Your task to perform on an android device: Go to wifi settings Image 0: 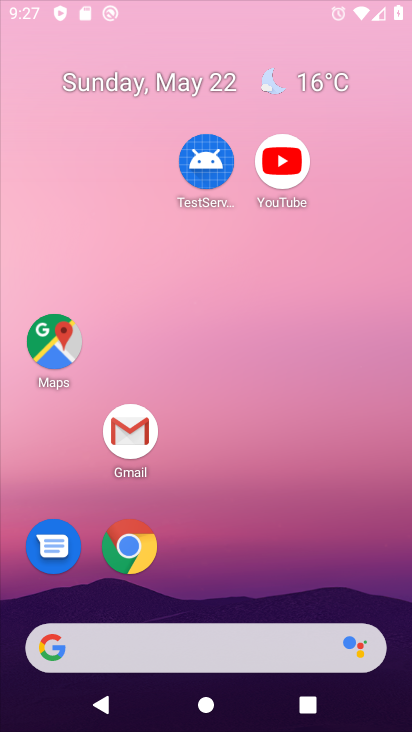
Step 0: click (248, 161)
Your task to perform on an android device: Go to wifi settings Image 1: 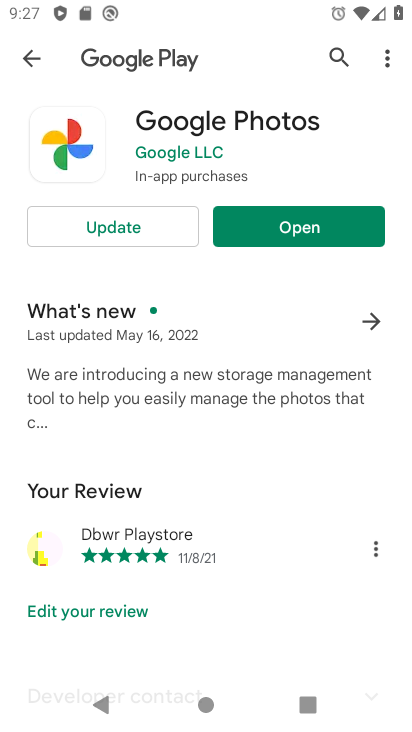
Step 1: press back button
Your task to perform on an android device: Go to wifi settings Image 2: 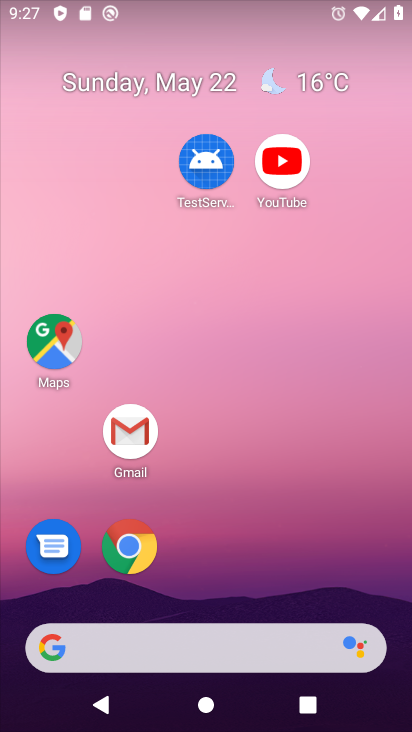
Step 2: drag from (250, 723) to (209, 221)
Your task to perform on an android device: Go to wifi settings Image 3: 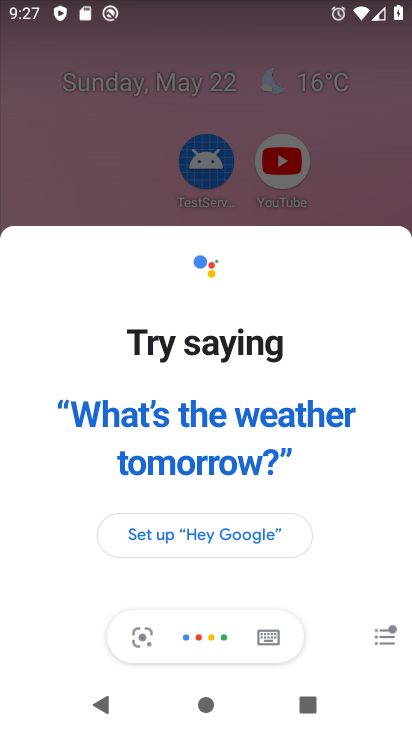
Step 3: drag from (296, 556) to (296, 145)
Your task to perform on an android device: Go to wifi settings Image 4: 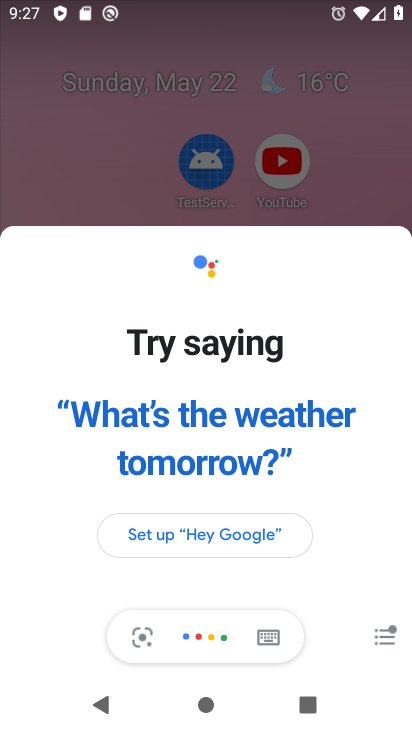
Step 4: press back button
Your task to perform on an android device: Go to wifi settings Image 5: 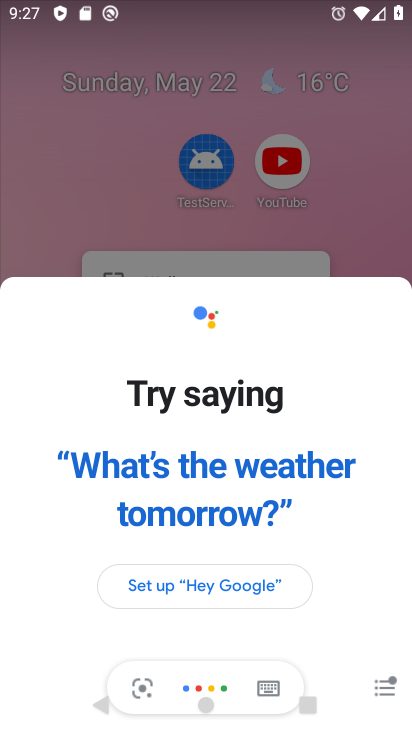
Step 5: press back button
Your task to perform on an android device: Go to wifi settings Image 6: 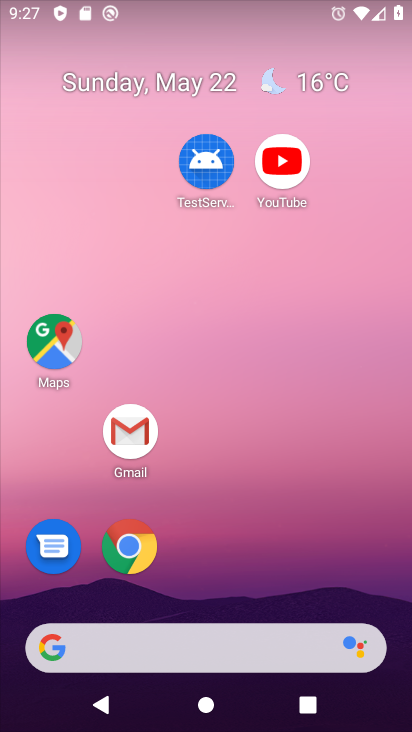
Step 6: drag from (278, 681) to (281, 76)
Your task to perform on an android device: Go to wifi settings Image 7: 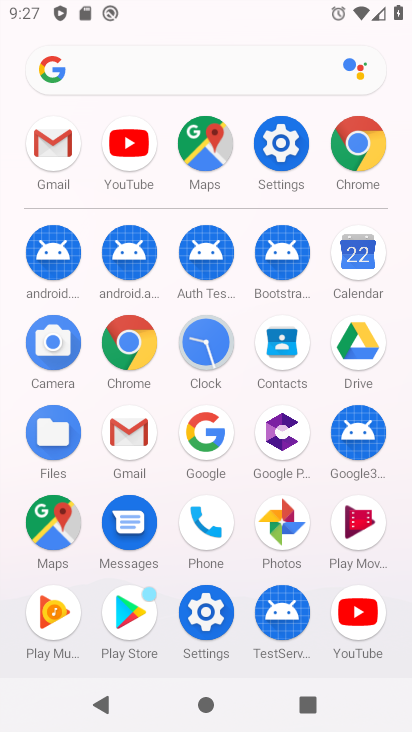
Step 7: click (277, 148)
Your task to perform on an android device: Go to wifi settings Image 8: 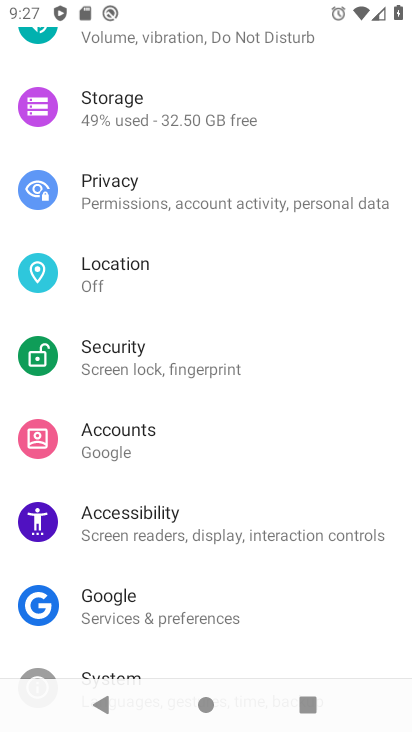
Step 8: drag from (173, 143) to (166, 472)
Your task to perform on an android device: Go to wifi settings Image 9: 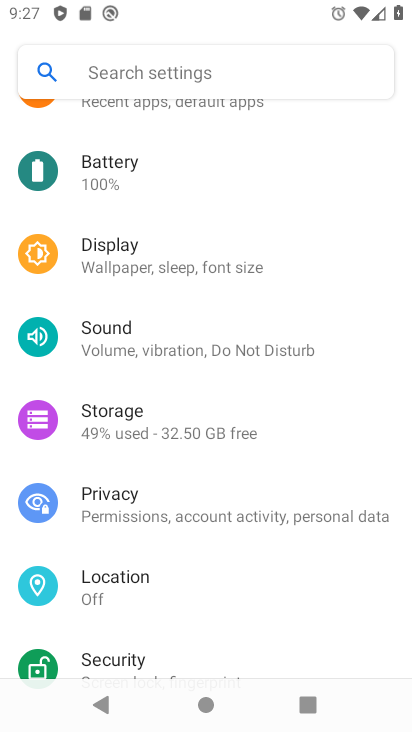
Step 9: drag from (183, 151) to (212, 493)
Your task to perform on an android device: Go to wifi settings Image 10: 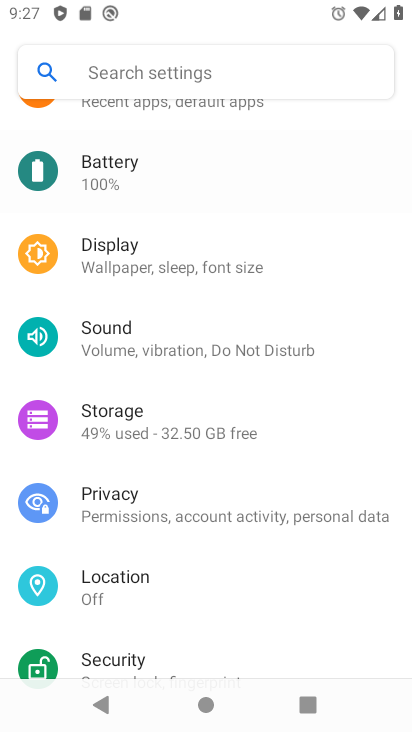
Step 10: drag from (182, 138) to (168, 483)
Your task to perform on an android device: Go to wifi settings Image 11: 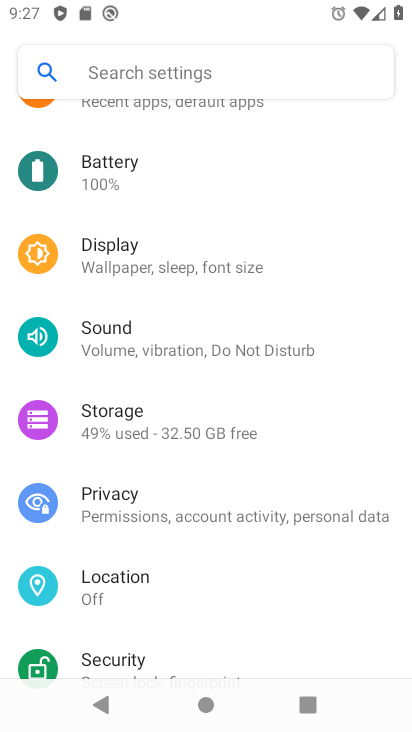
Step 11: drag from (218, 243) to (219, 652)
Your task to perform on an android device: Go to wifi settings Image 12: 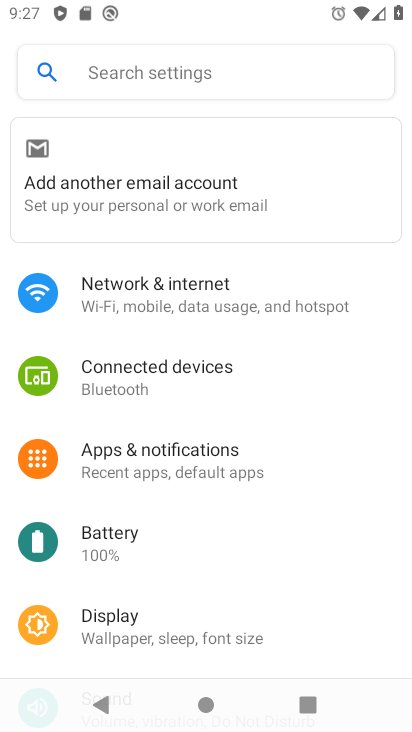
Step 12: drag from (220, 210) to (265, 698)
Your task to perform on an android device: Go to wifi settings Image 13: 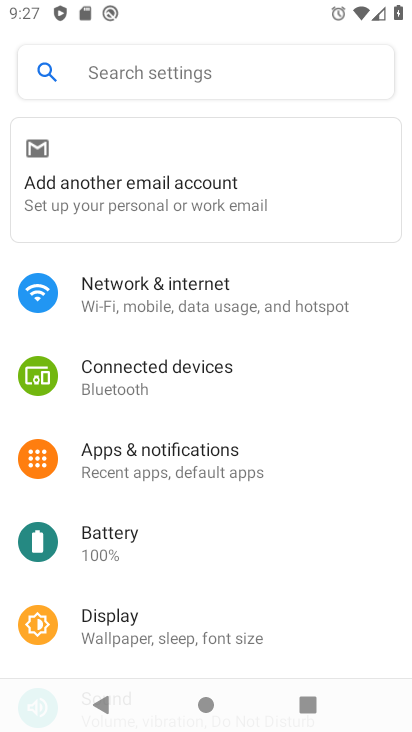
Step 13: click (167, 298)
Your task to perform on an android device: Go to wifi settings Image 14: 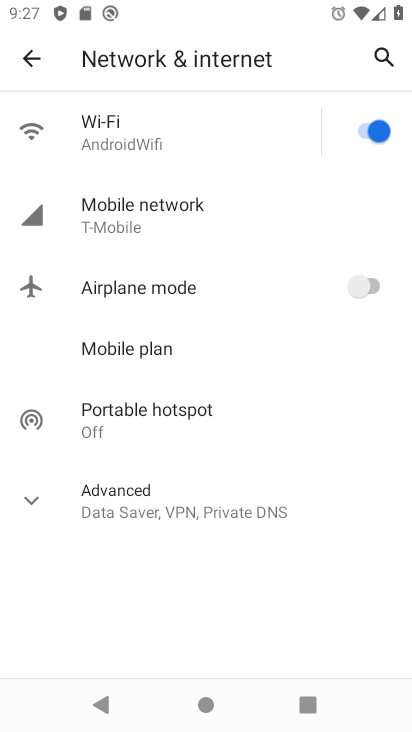
Step 14: task complete